Your task to perform on an android device: check google app version Image 0: 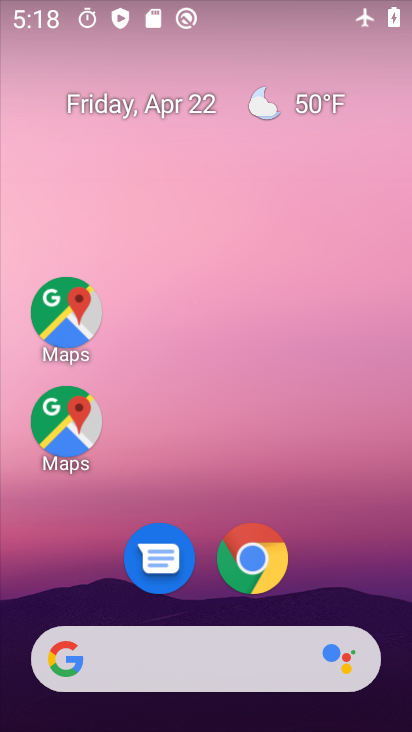
Step 0: drag from (328, 491) to (263, 221)
Your task to perform on an android device: check google app version Image 1: 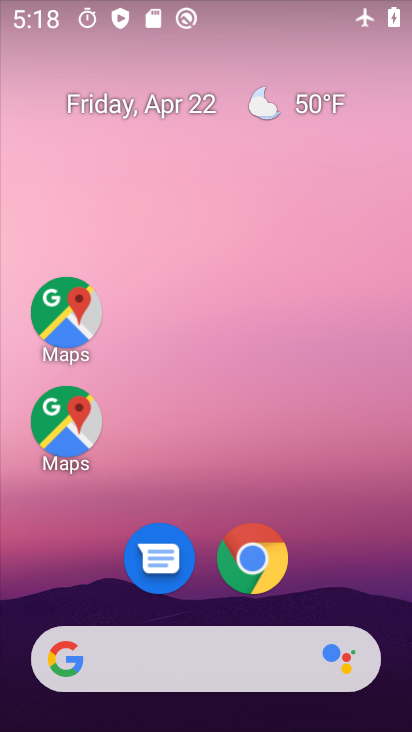
Step 1: drag from (309, 498) to (218, 196)
Your task to perform on an android device: check google app version Image 2: 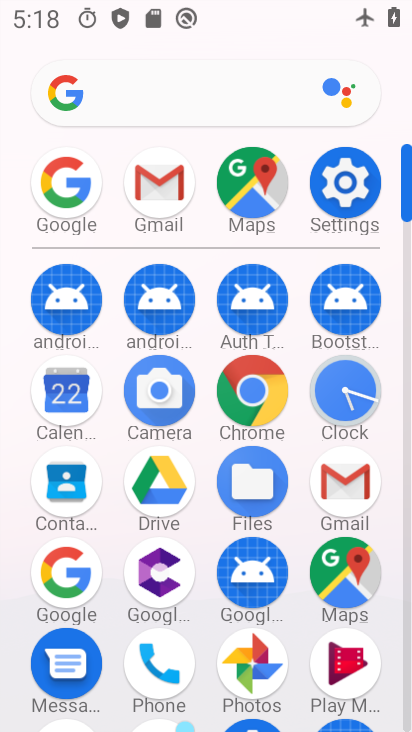
Step 2: click (45, 217)
Your task to perform on an android device: check google app version Image 3: 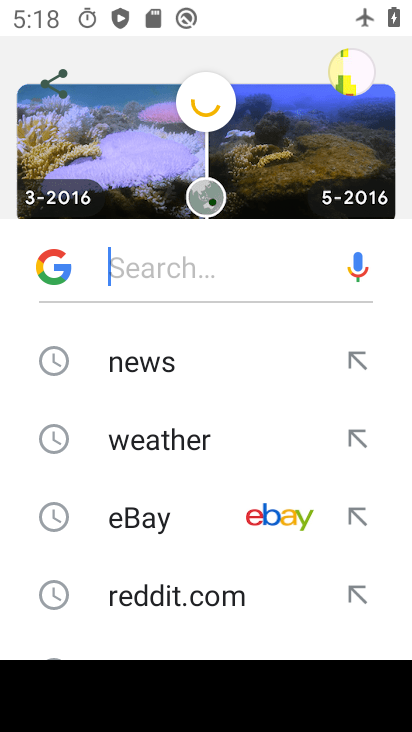
Step 3: click (66, 269)
Your task to perform on an android device: check google app version Image 4: 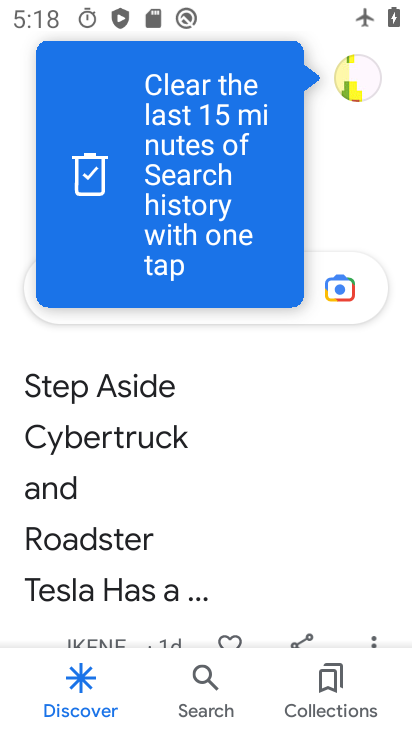
Step 4: drag from (282, 575) to (279, 404)
Your task to perform on an android device: check google app version Image 5: 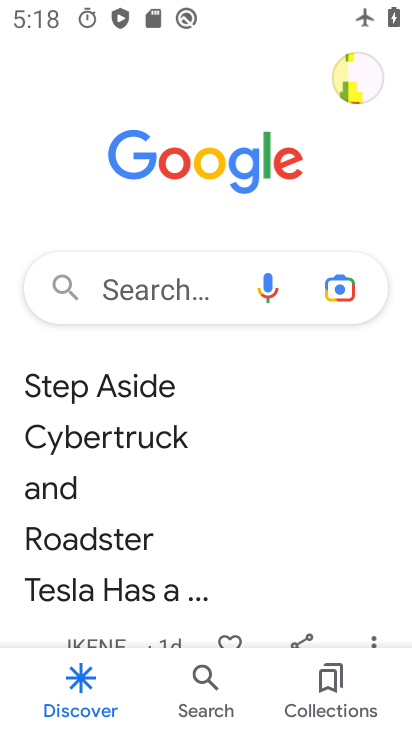
Step 5: click (373, 640)
Your task to perform on an android device: check google app version Image 6: 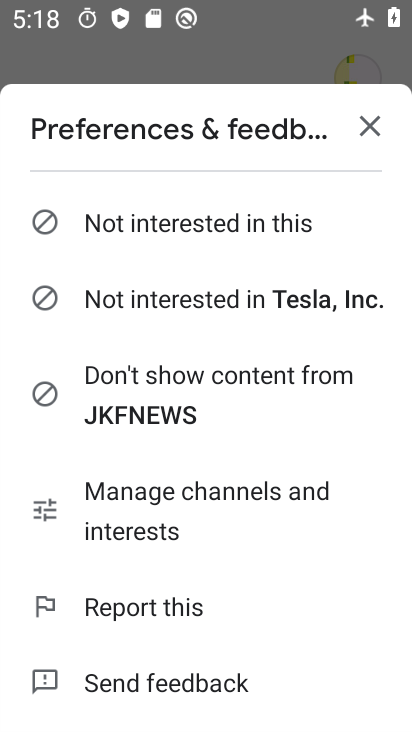
Step 6: click (377, 129)
Your task to perform on an android device: check google app version Image 7: 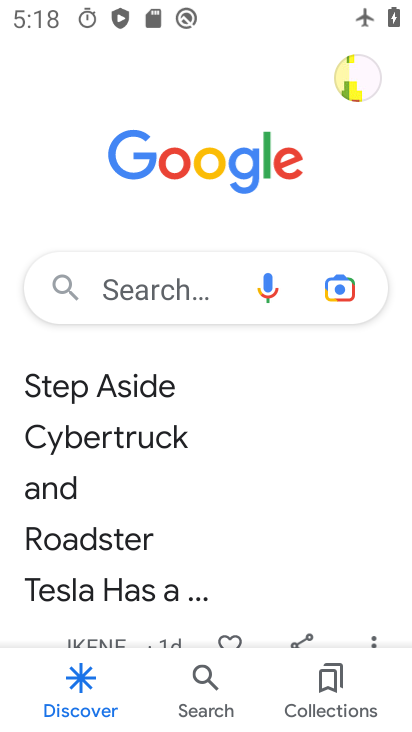
Step 7: click (356, 78)
Your task to perform on an android device: check google app version Image 8: 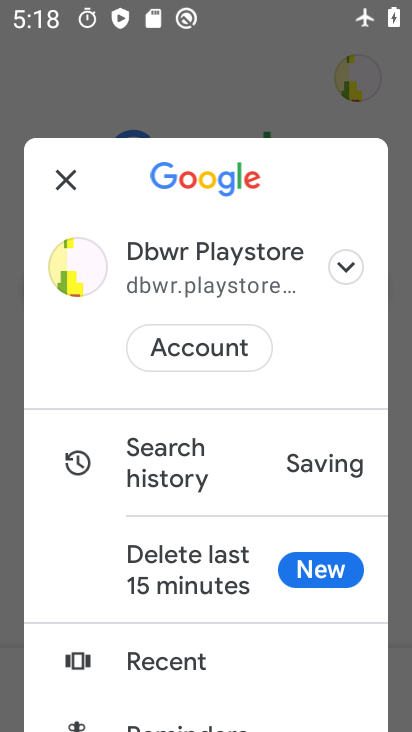
Step 8: drag from (186, 649) to (177, 326)
Your task to perform on an android device: check google app version Image 9: 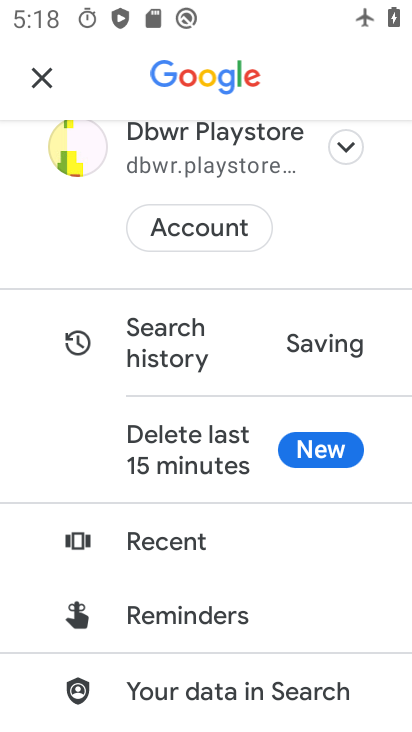
Step 9: drag from (209, 604) to (234, 292)
Your task to perform on an android device: check google app version Image 10: 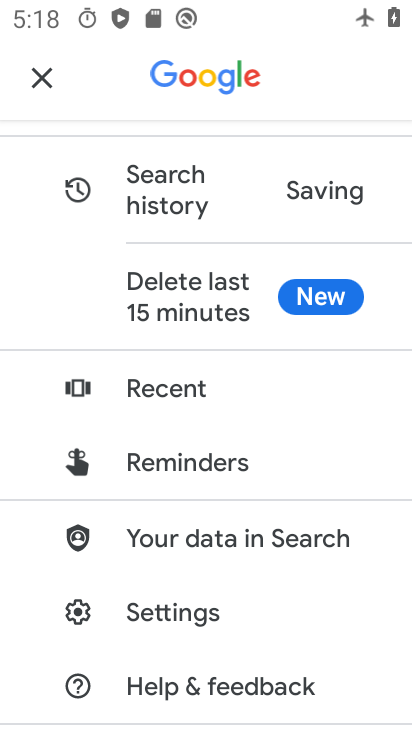
Step 10: click (174, 618)
Your task to perform on an android device: check google app version Image 11: 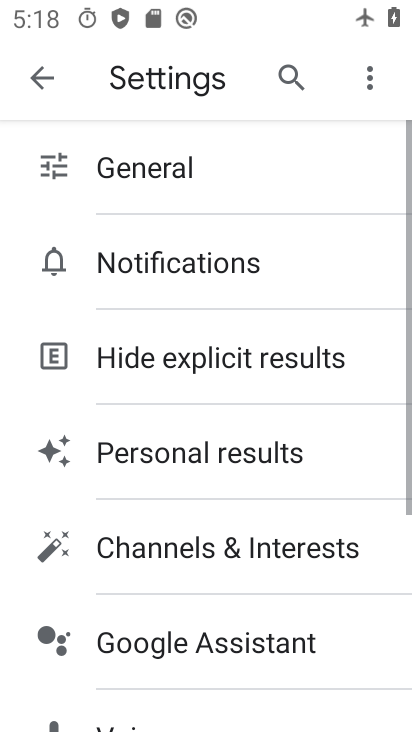
Step 11: drag from (209, 667) to (203, 229)
Your task to perform on an android device: check google app version Image 12: 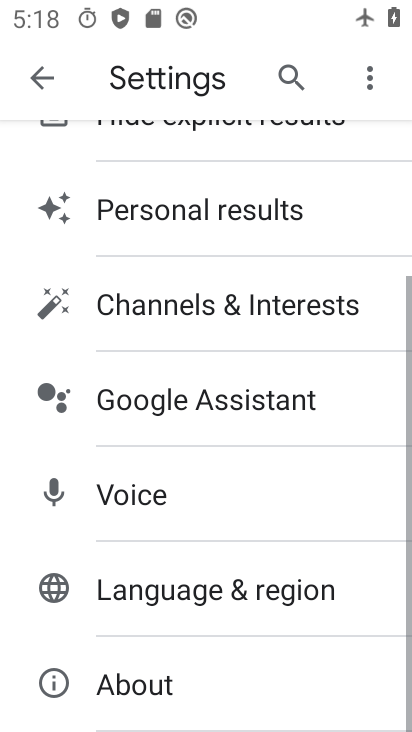
Step 12: click (142, 686)
Your task to perform on an android device: check google app version Image 13: 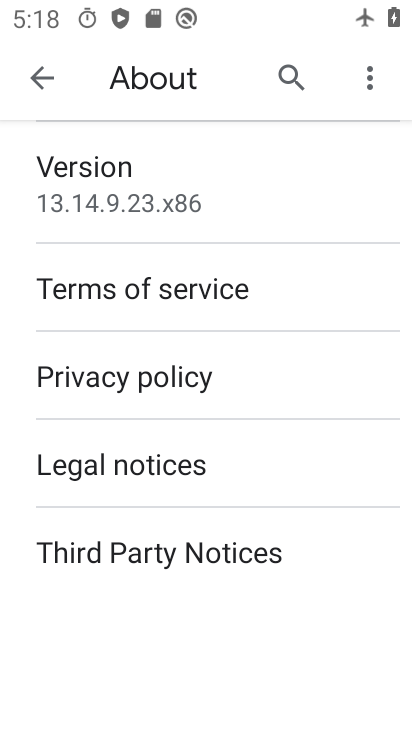
Step 13: task complete